Your task to perform on an android device: snooze an email in the gmail app Image 0: 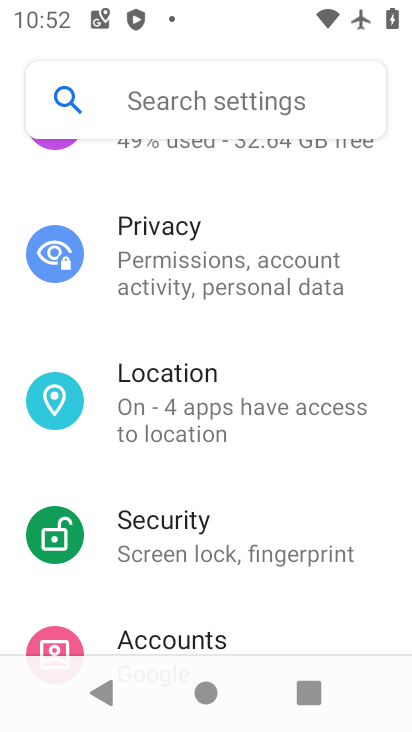
Step 0: press home button
Your task to perform on an android device: snooze an email in the gmail app Image 1: 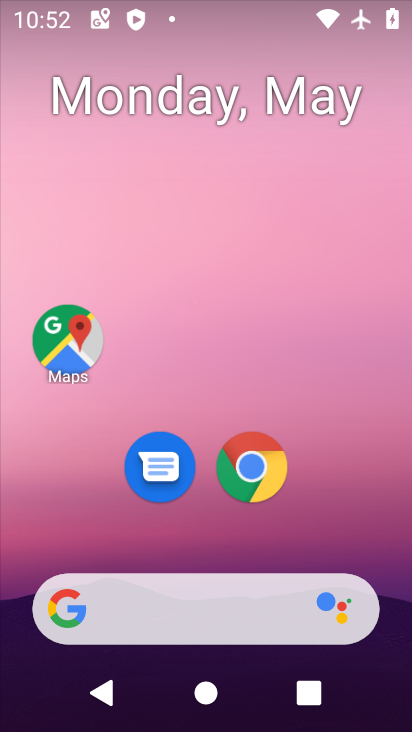
Step 1: drag from (332, 499) to (329, 7)
Your task to perform on an android device: snooze an email in the gmail app Image 2: 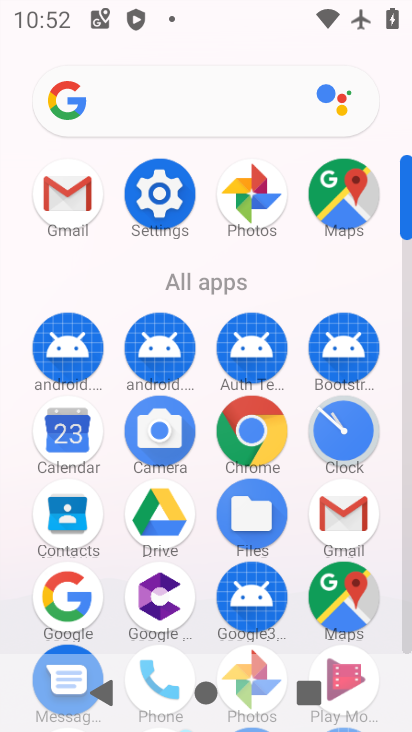
Step 2: click (341, 512)
Your task to perform on an android device: snooze an email in the gmail app Image 3: 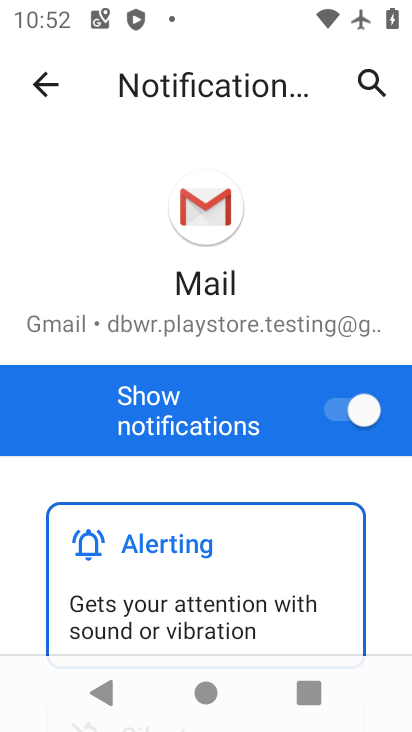
Step 3: click (39, 82)
Your task to perform on an android device: snooze an email in the gmail app Image 4: 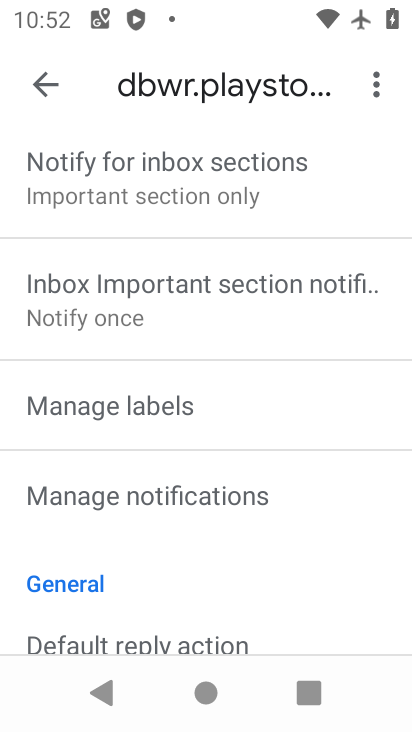
Step 4: click (39, 86)
Your task to perform on an android device: snooze an email in the gmail app Image 5: 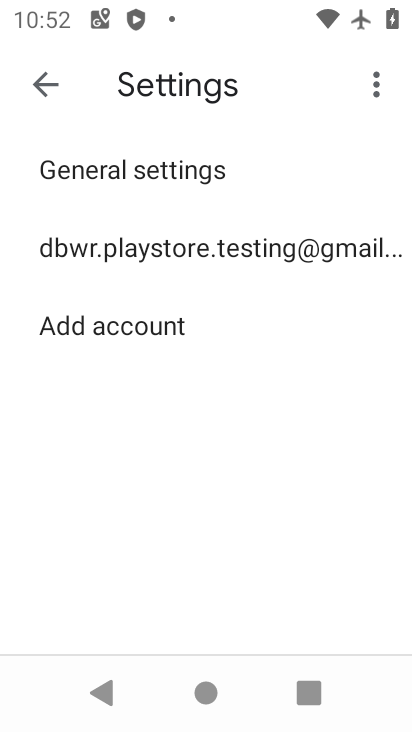
Step 5: click (49, 87)
Your task to perform on an android device: snooze an email in the gmail app Image 6: 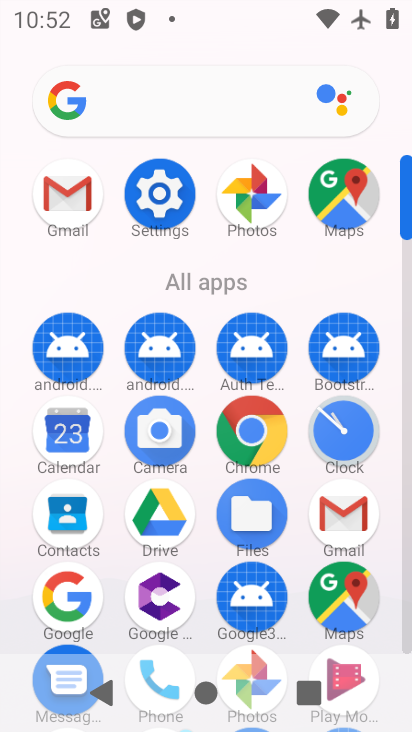
Step 6: click (334, 520)
Your task to perform on an android device: snooze an email in the gmail app Image 7: 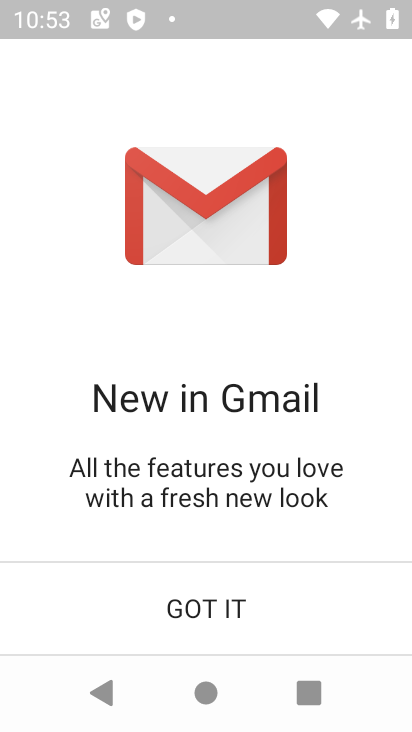
Step 7: click (224, 616)
Your task to perform on an android device: snooze an email in the gmail app Image 8: 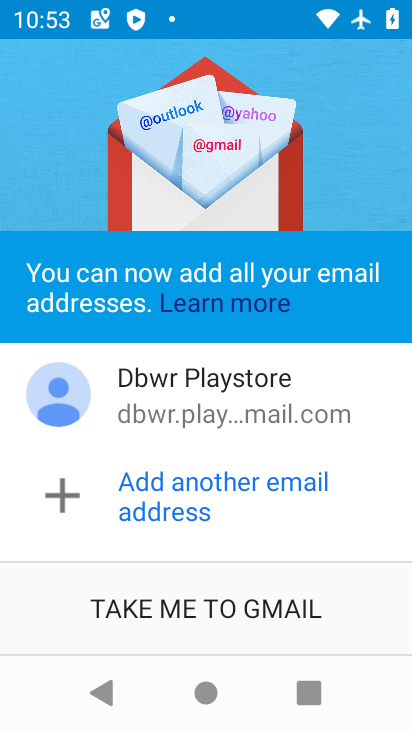
Step 8: click (246, 606)
Your task to perform on an android device: snooze an email in the gmail app Image 9: 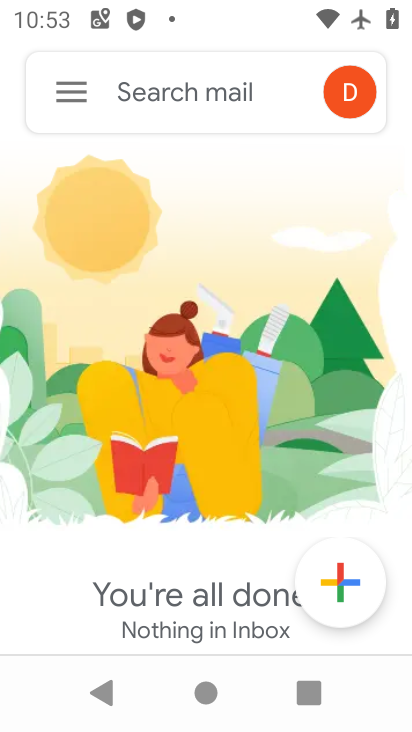
Step 9: click (73, 93)
Your task to perform on an android device: snooze an email in the gmail app Image 10: 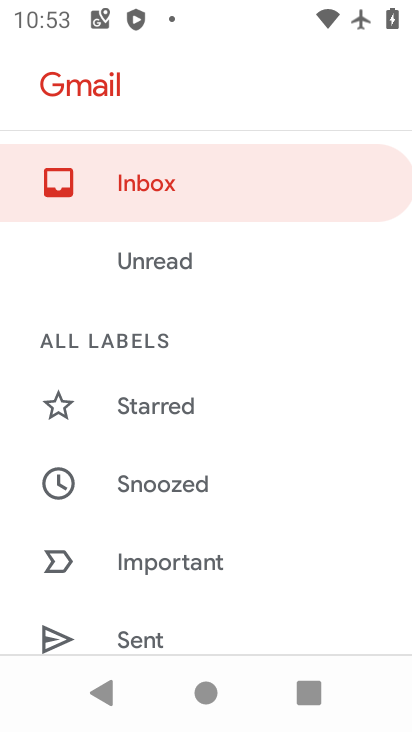
Step 10: drag from (130, 644) to (171, 223)
Your task to perform on an android device: snooze an email in the gmail app Image 11: 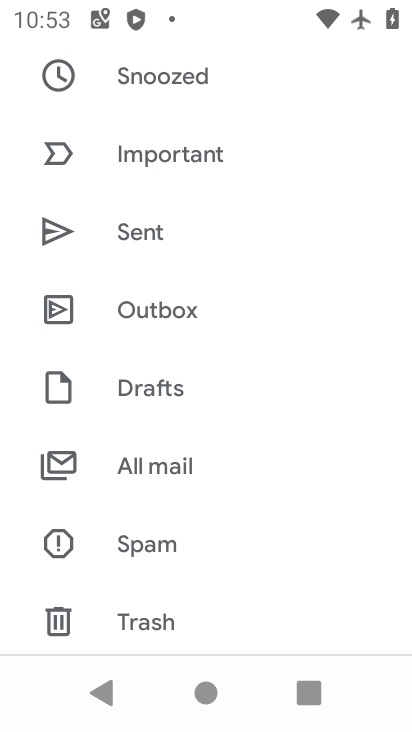
Step 11: click (172, 469)
Your task to perform on an android device: snooze an email in the gmail app Image 12: 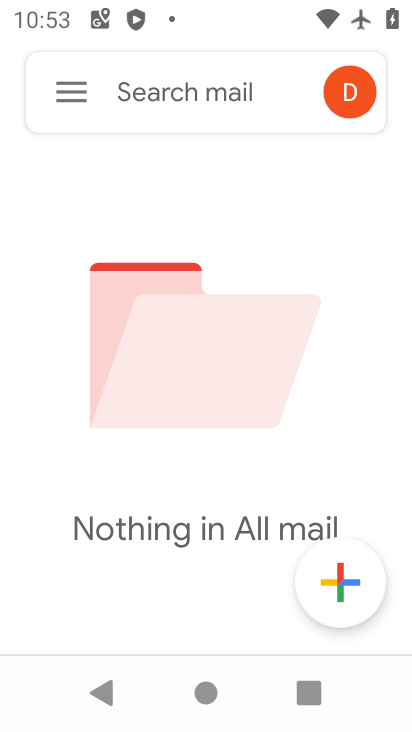
Step 12: task complete